Your task to perform on an android device: When is my next meeting? Image 0: 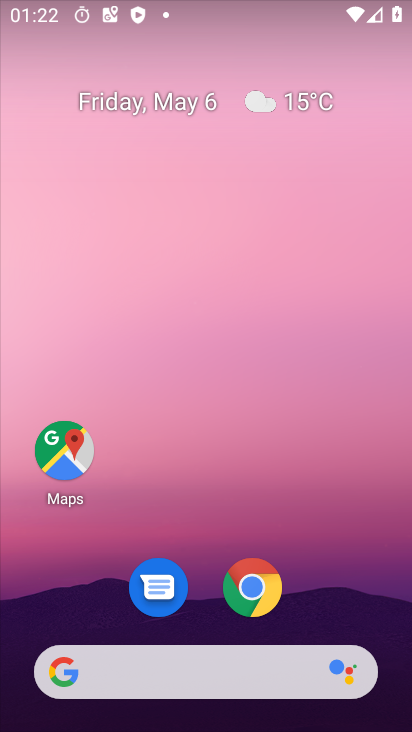
Step 0: drag from (356, 546) to (261, 281)
Your task to perform on an android device: When is my next meeting? Image 1: 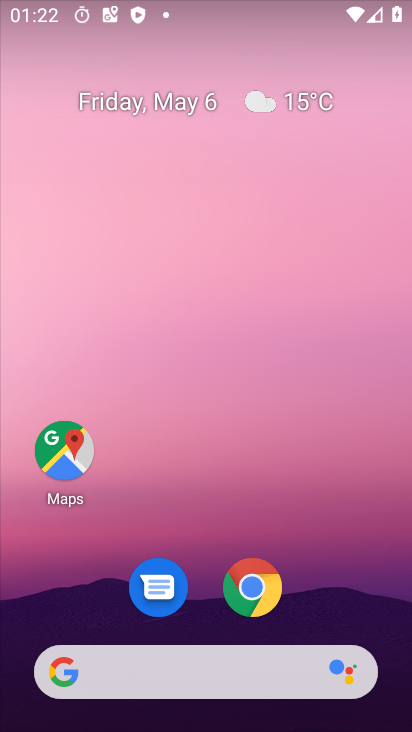
Step 1: drag from (382, 641) to (273, 190)
Your task to perform on an android device: When is my next meeting? Image 2: 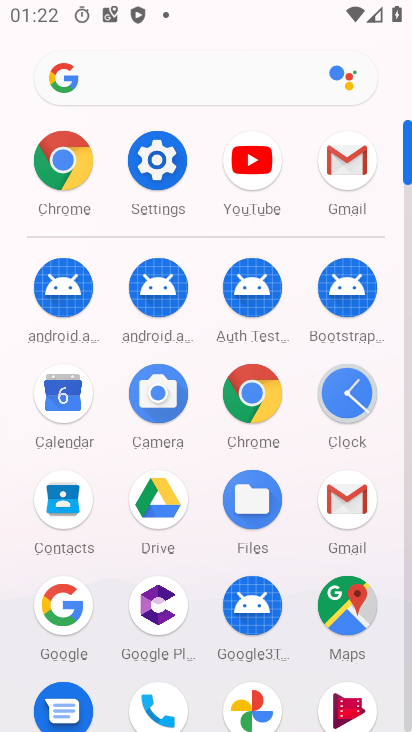
Step 2: click (58, 403)
Your task to perform on an android device: When is my next meeting? Image 3: 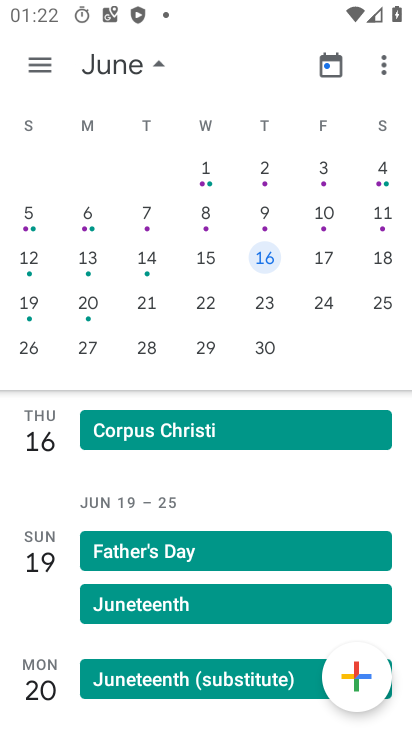
Step 3: click (154, 67)
Your task to perform on an android device: When is my next meeting? Image 4: 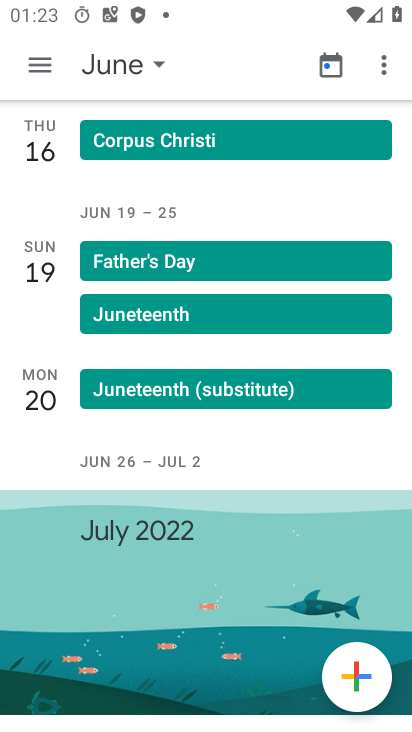
Step 4: task complete